Your task to perform on an android device: Is it going to rain today? Image 0: 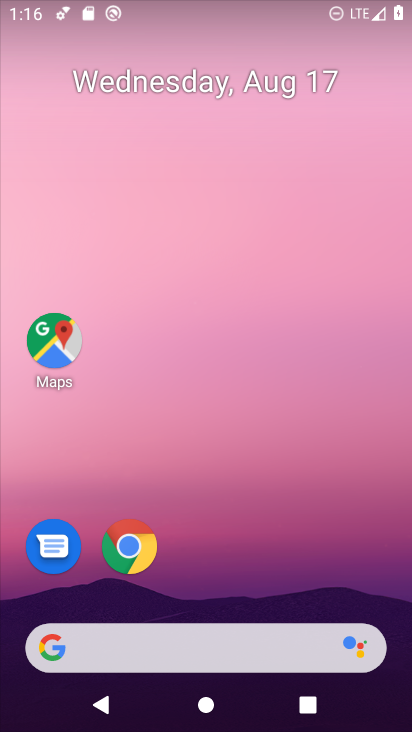
Step 0: click (188, 639)
Your task to perform on an android device: Is it going to rain today? Image 1: 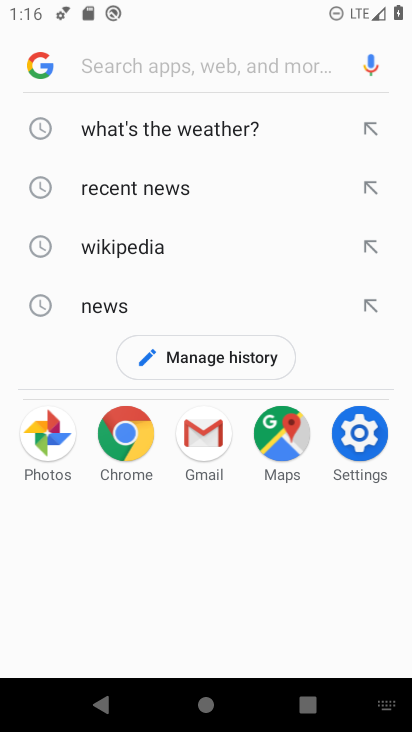
Step 1: type "weather"
Your task to perform on an android device: Is it going to rain today? Image 2: 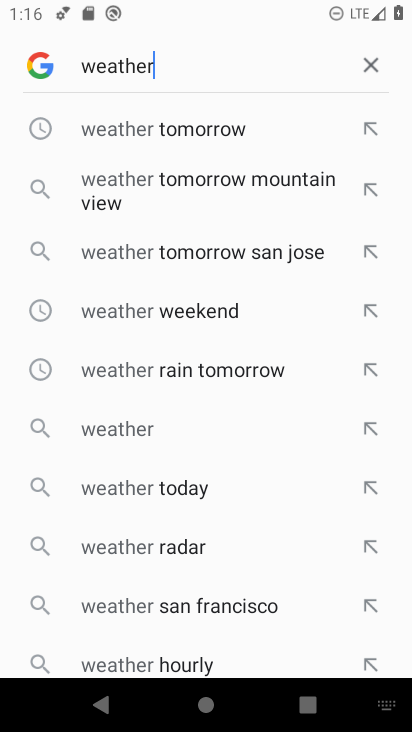
Step 2: click (137, 487)
Your task to perform on an android device: Is it going to rain today? Image 3: 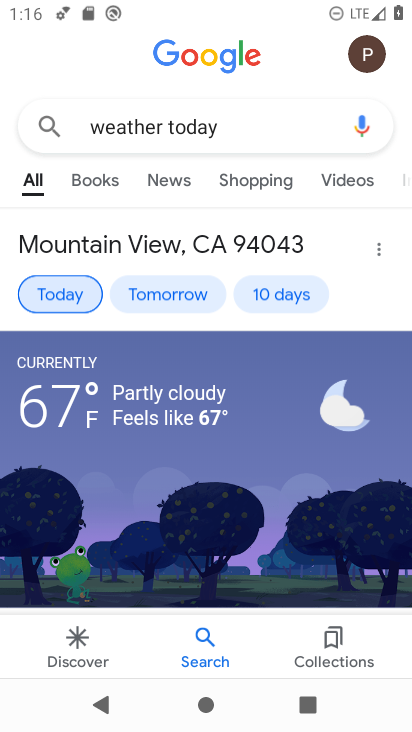
Step 3: task complete